Your task to perform on an android device: turn off translation in the chrome app Image 0: 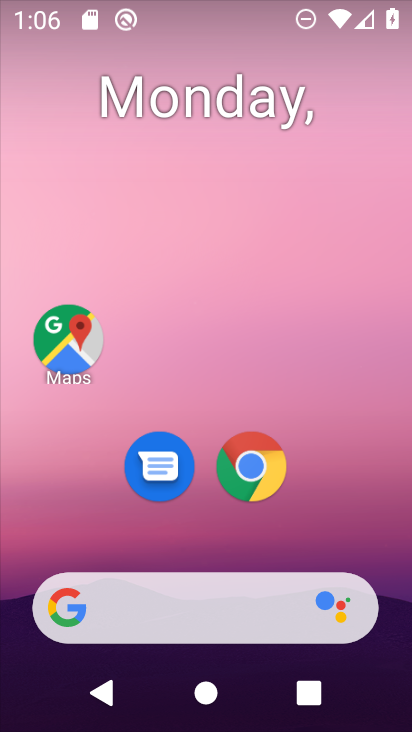
Step 0: drag from (199, 562) to (214, 0)
Your task to perform on an android device: turn off translation in the chrome app Image 1: 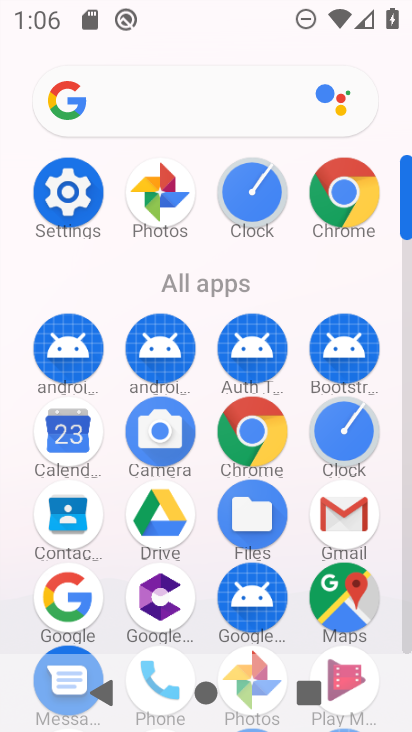
Step 1: click (258, 425)
Your task to perform on an android device: turn off translation in the chrome app Image 2: 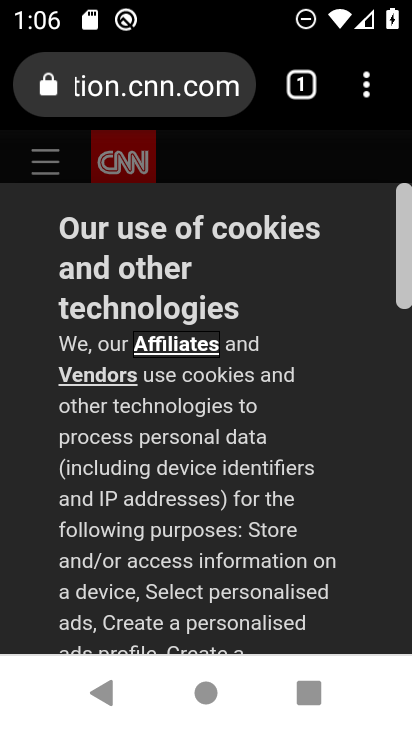
Step 2: click (371, 97)
Your task to perform on an android device: turn off translation in the chrome app Image 3: 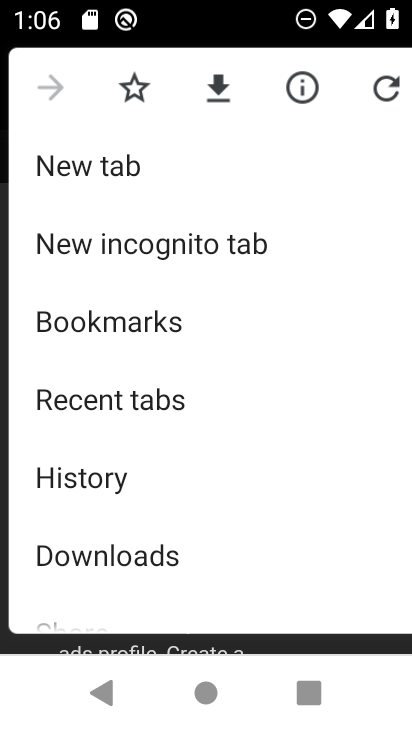
Step 3: drag from (119, 486) to (169, 235)
Your task to perform on an android device: turn off translation in the chrome app Image 4: 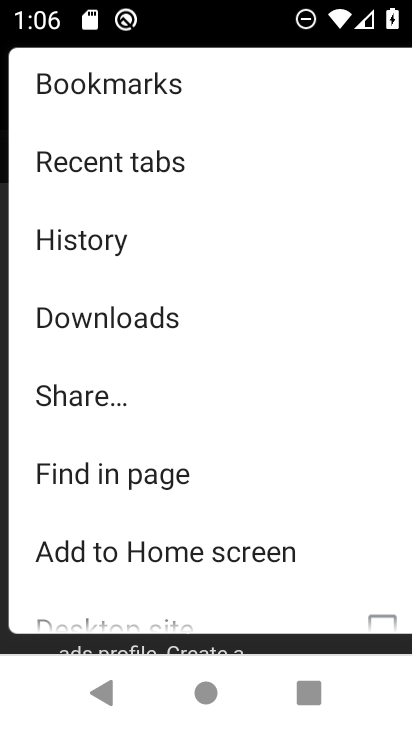
Step 4: drag from (129, 571) to (177, 267)
Your task to perform on an android device: turn off translation in the chrome app Image 5: 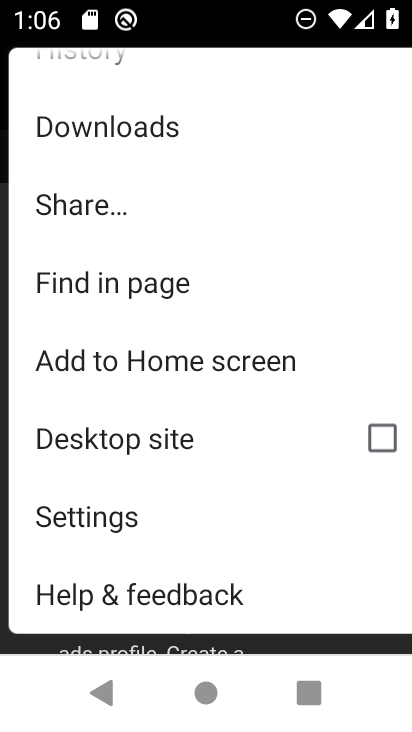
Step 5: click (94, 521)
Your task to perform on an android device: turn off translation in the chrome app Image 6: 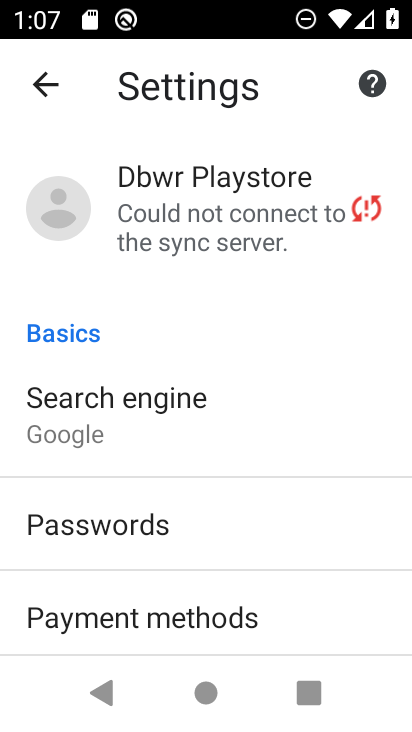
Step 6: drag from (182, 557) to (223, 157)
Your task to perform on an android device: turn off translation in the chrome app Image 7: 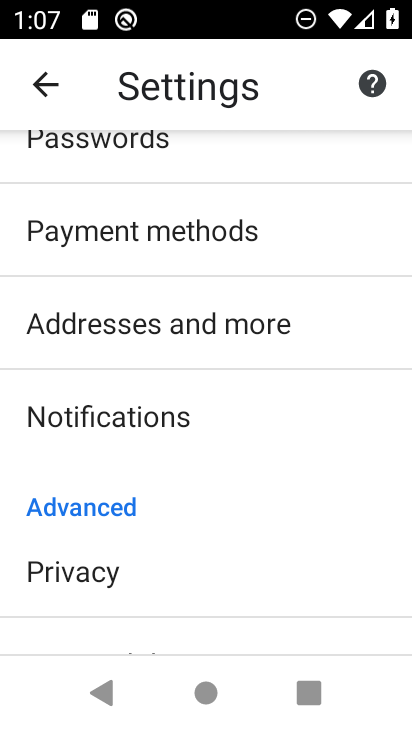
Step 7: drag from (132, 552) to (165, 162)
Your task to perform on an android device: turn off translation in the chrome app Image 8: 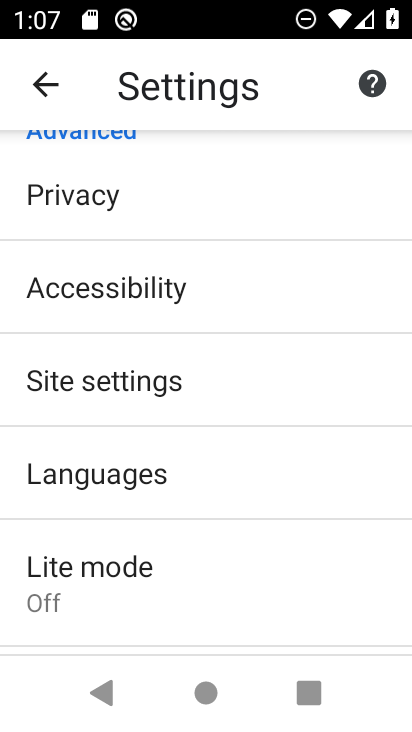
Step 8: click (147, 491)
Your task to perform on an android device: turn off translation in the chrome app Image 9: 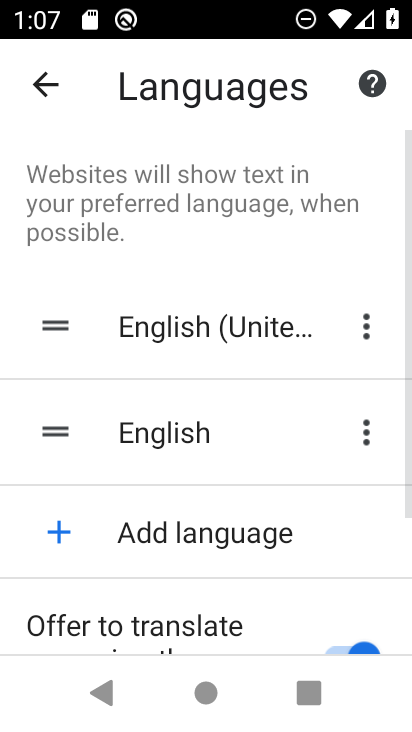
Step 9: drag from (265, 569) to (265, 378)
Your task to perform on an android device: turn off translation in the chrome app Image 10: 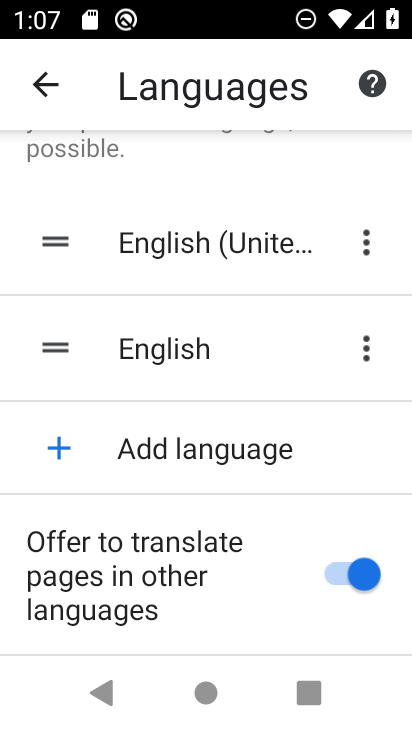
Step 10: click (316, 581)
Your task to perform on an android device: turn off translation in the chrome app Image 11: 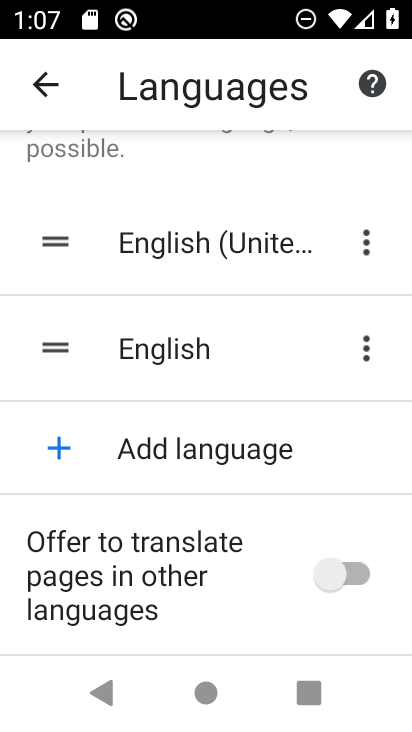
Step 11: task complete